Your task to perform on an android device: turn on improve location accuracy Image 0: 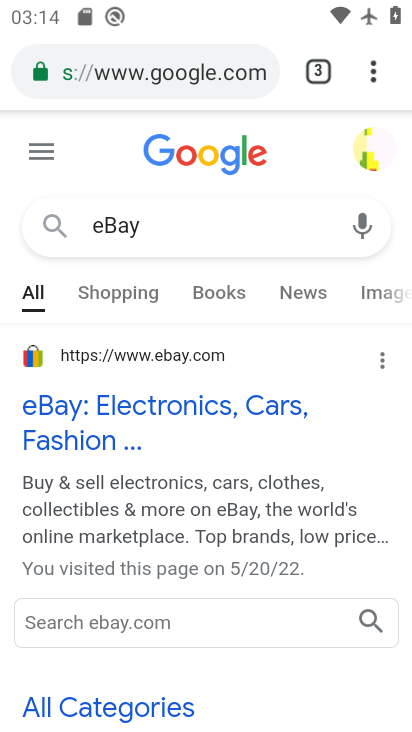
Step 0: press home button
Your task to perform on an android device: turn on improve location accuracy Image 1: 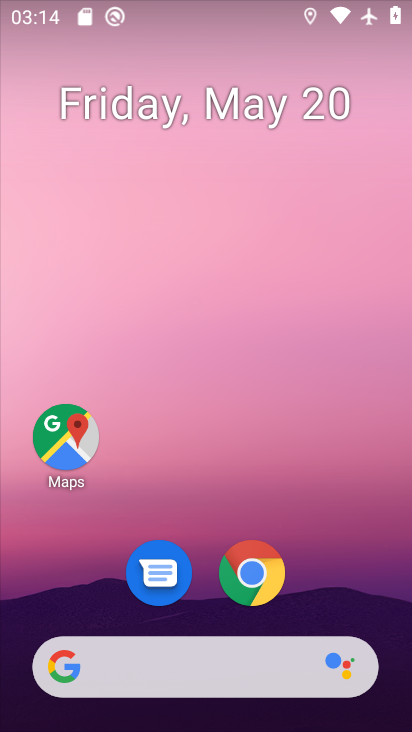
Step 1: drag from (195, 596) to (178, 187)
Your task to perform on an android device: turn on improve location accuracy Image 2: 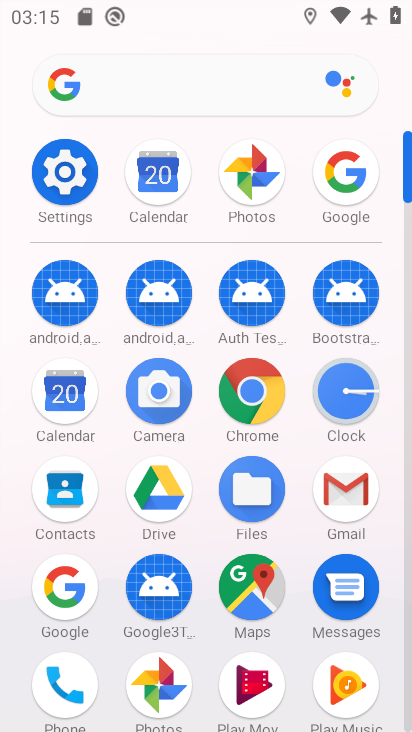
Step 2: click (42, 166)
Your task to perform on an android device: turn on improve location accuracy Image 3: 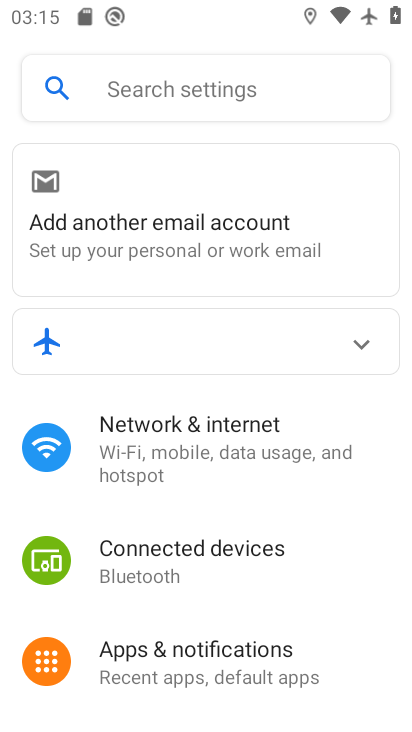
Step 3: drag from (160, 618) to (183, 335)
Your task to perform on an android device: turn on improve location accuracy Image 4: 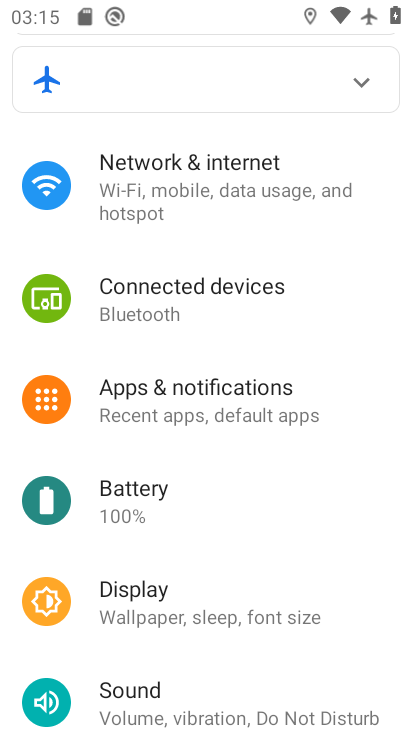
Step 4: drag from (154, 634) to (194, 436)
Your task to perform on an android device: turn on improve location accuracy Image 5: 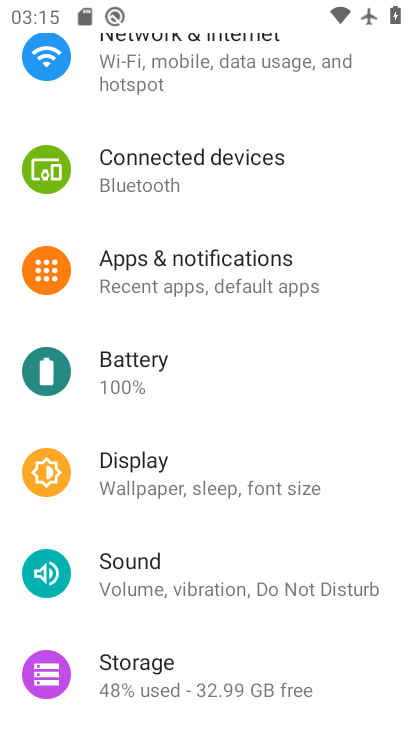
Step 5: drag from (194, 584) to (223, 372)
Your task to perform on an android device: turn on improve location accuracy Image 6: 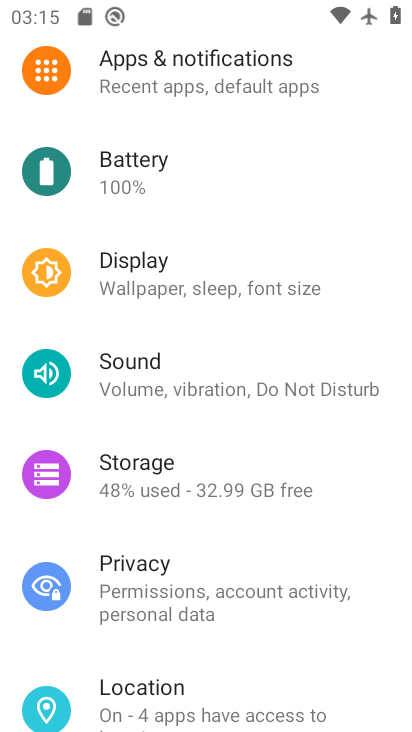
Step 6: click (168, 677)
Your task to perform on an android device: turn on improve location accuracy Image 7: 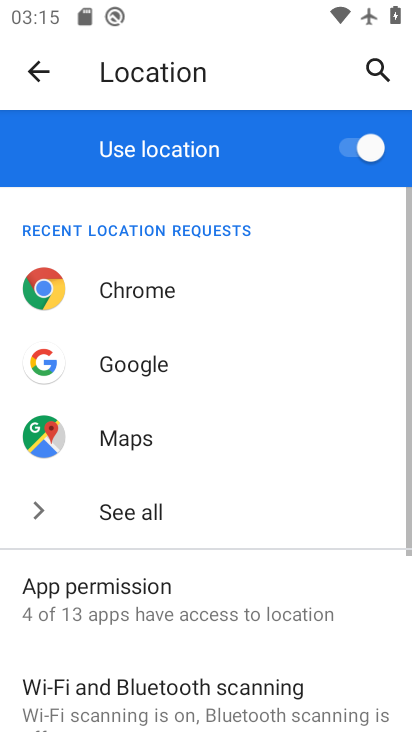
Step 7: drag from (267, 578) to (306, 218)
Your task to perform on an android device: turn on improve location accuracy Image 8: 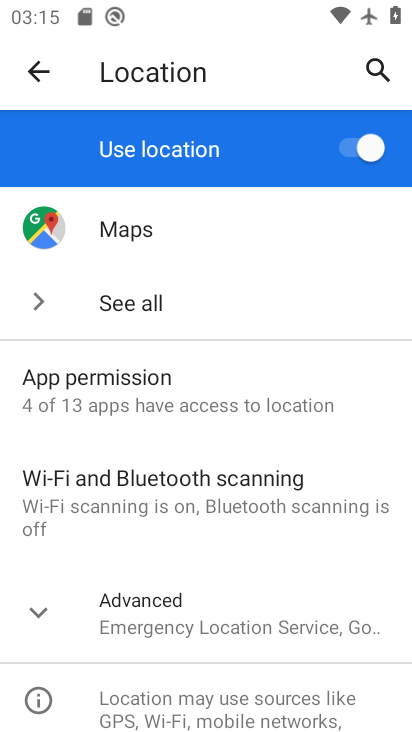
Step 8: drag from (285, 596) to (295, 400)
Your task to perform on an android device: turn on improve location accuracy Image 9: 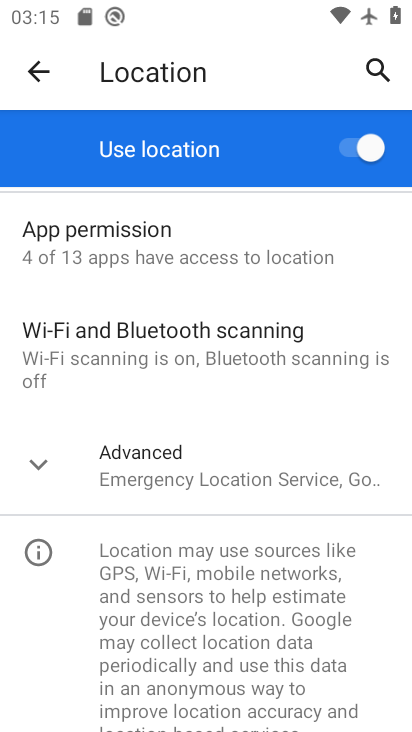
Step 9: click (246, 450)
Your task to perform on an android device: turn on improve location accuracy Image 10: 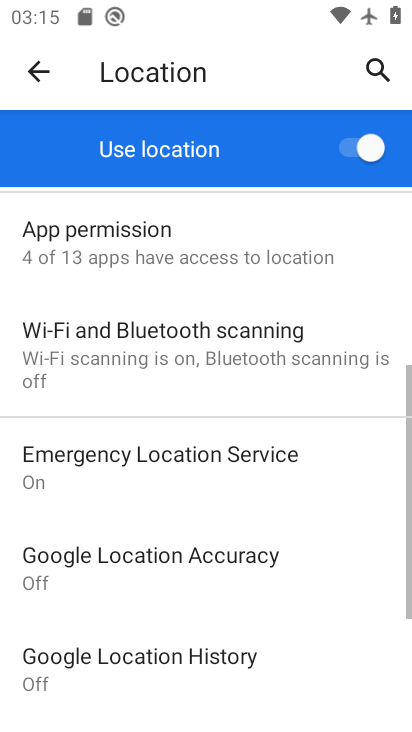
Step 10: drag from (243, 606) to (268, 445)
Your task to perform on an android device: turn on improve location accuracy Image 11: 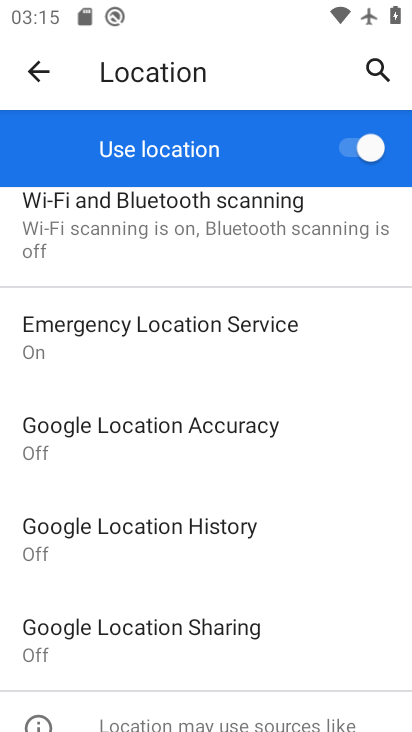
Step 11: click (251, 424)
Your task to perform on an android device: turn on improve location accuracy Image 12: 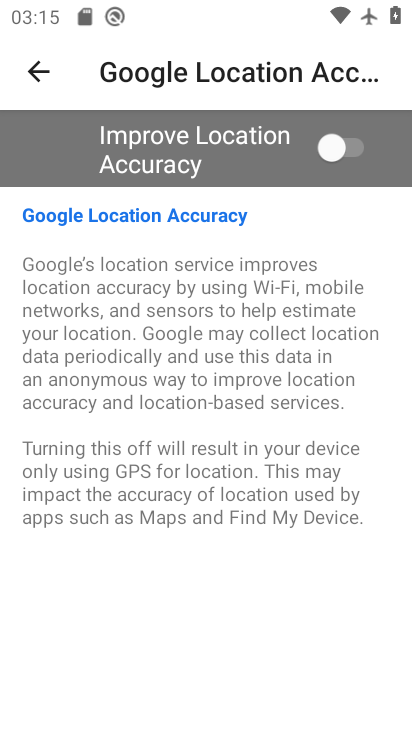
Step 12: click (362, 145)
Your task to perform on an android device: turn on improve location accuracy Image 13: 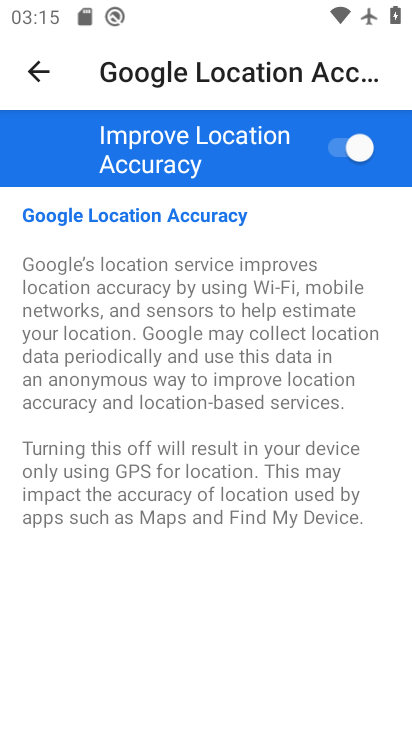
Step 13: task complete